Your task to perform on an android device: What is the recent news? Image 0: 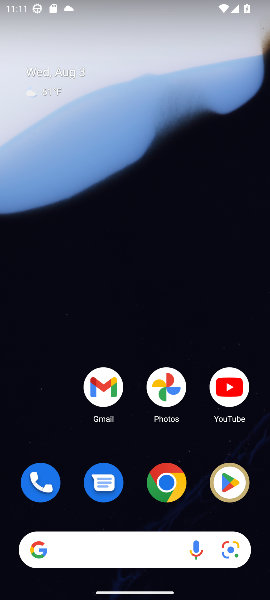
Step 0: click (106, 545)
Your task to perform on an android device: What is the recent news? Image 1: 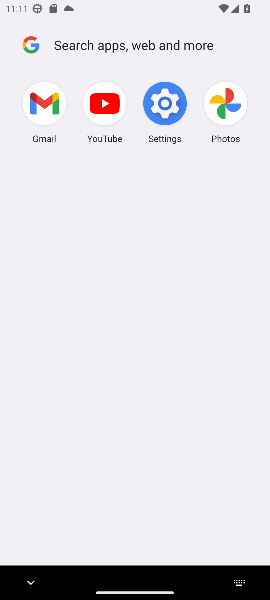
Step 1: type "news"
Your task to perform on an android device: What is the recent news? Image 2: 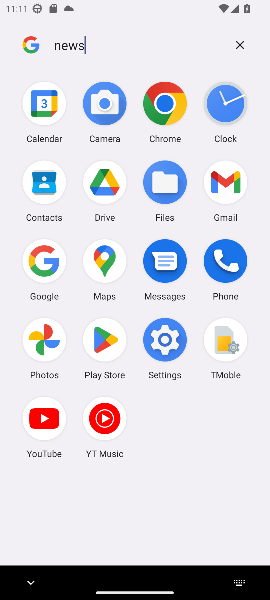
Step 2: task complete